Your task to perform on an android device: Go to calendar. Show me events next week Image 0: 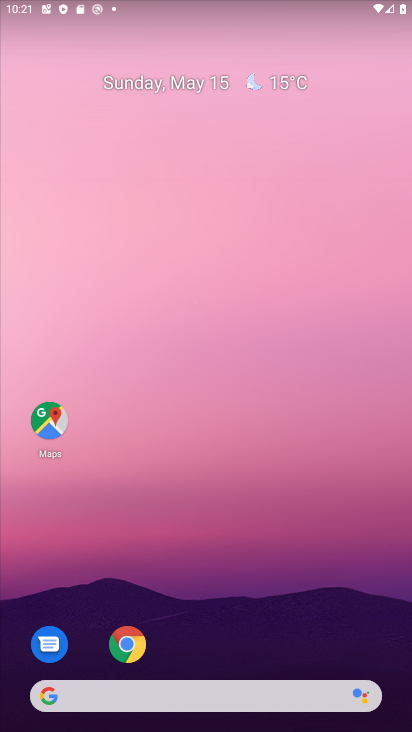
Step 0: drag from (206, 678) to (202, 332)
Your task to perform on an android device: Go to calendar. Show me events next week Image 1: 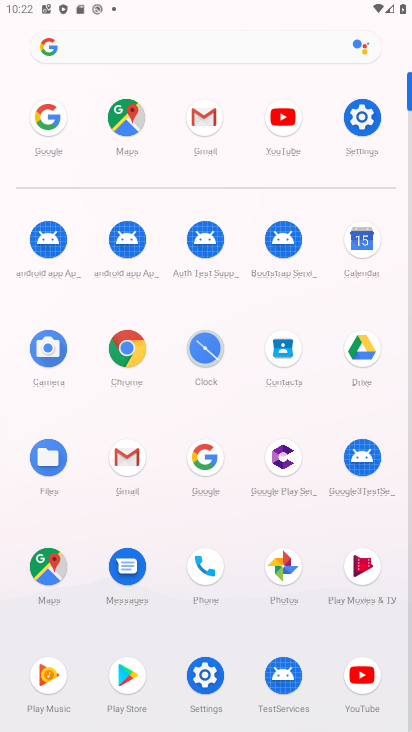
Step 1: click (364, 123)
Your task to perform on an android device: Go to calendar. Show me events next week Image 2: 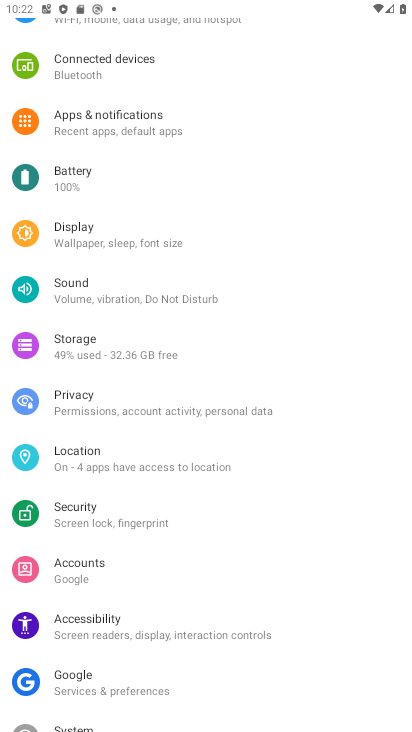
Step 2: drag from (106, 99) to (132, 515)
Your task to perform on an android device: Go to calendar. Show me events next week Image 3: 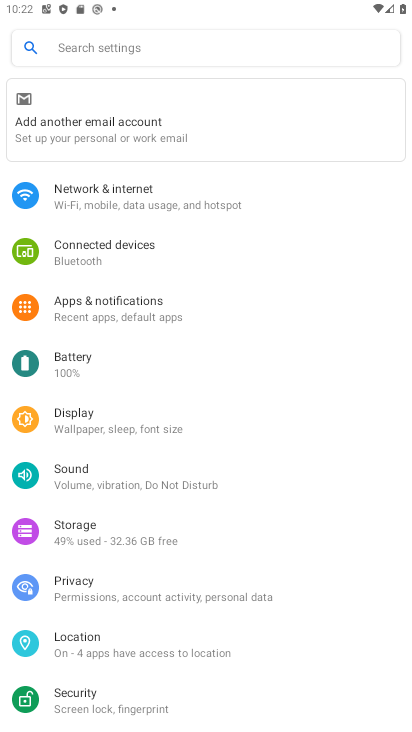
Step 3: press back button
Your task to perform on an android device: Go to calendar. Show me events next week Image 4: 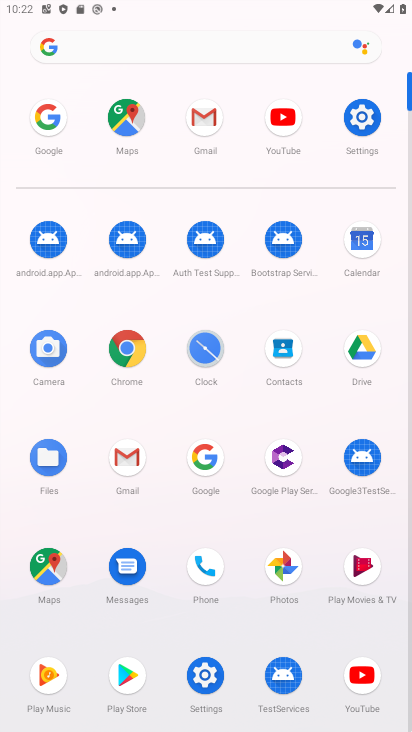
Step 4: click (361, 242)
Your task to perform on an android device: Go to calendar. Show me events next week Image 5: 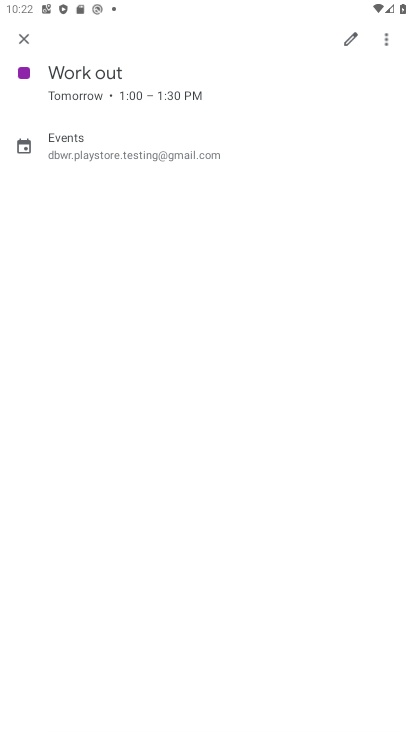
Step 5: click (22, 29)
Your task to perform on an android device: Go to calendar. Show me events next week Image 6: 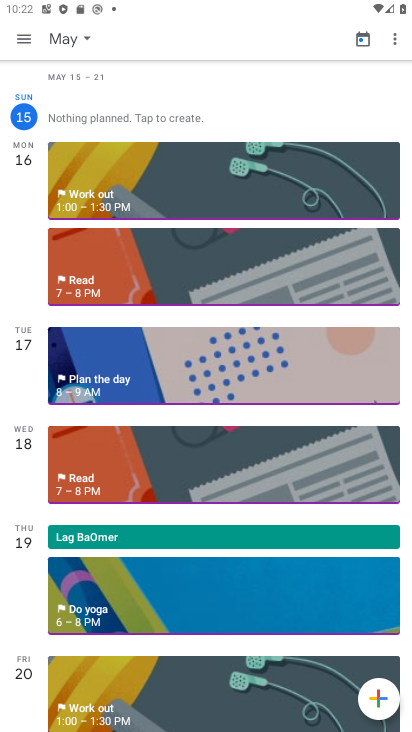
Step 6: drag from (192, 149) to (213, 401)
Your task to perform on an android device: Go to calendar. Show me events next week Image 7: 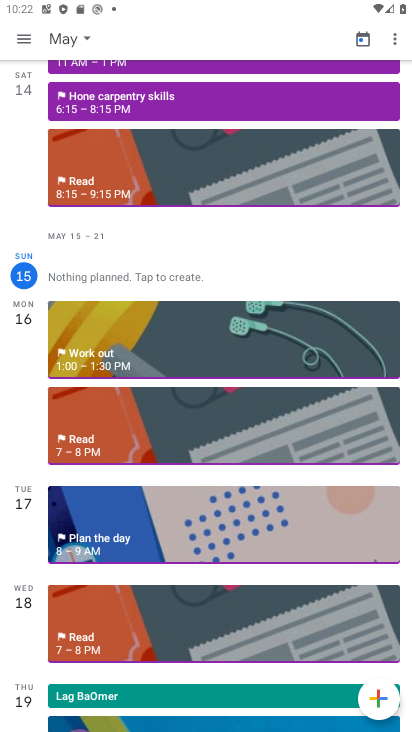
Step 7: drag from (158, 256) to (216, 502)
Your task to perform on an android device: Go to calendar. Show me events next week Image 8: 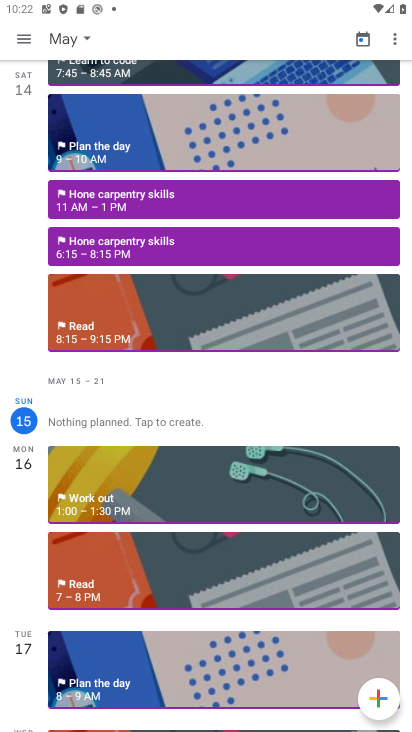
Step 8: drag from (211, 90) to (242, 566)
Your task to perform on an android device: Go to calendar. Show me events next week Image 9: 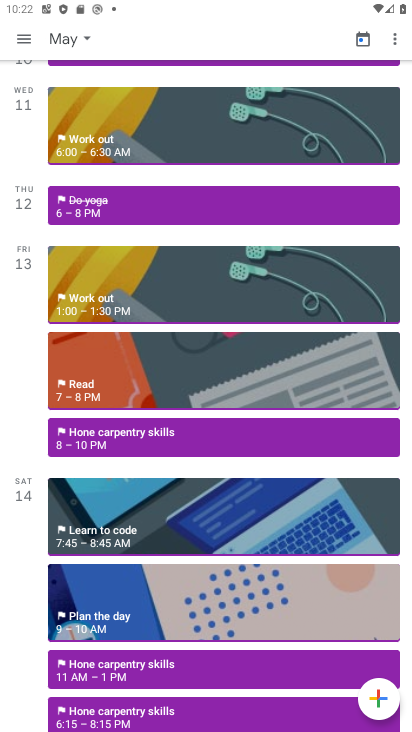
Step 9: drag from (149, 311) to (152, 655)
Your task to perform on an android device: Go to calendar. Show me events next week Image 10: 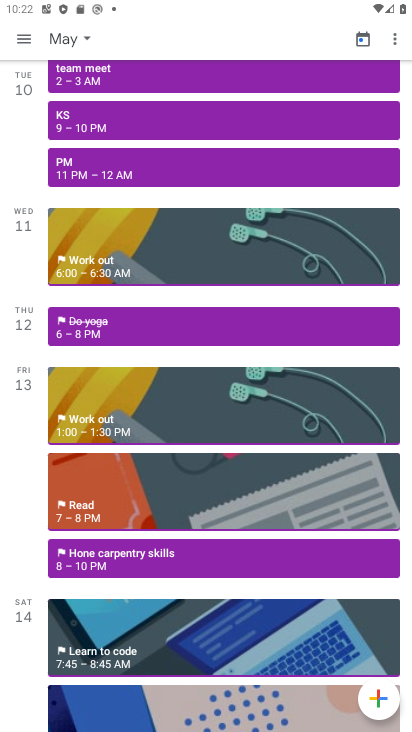
Step 10: click (65, 34)
Your task to perform on an android device: Go to calendar. Show me events next week Image 11: 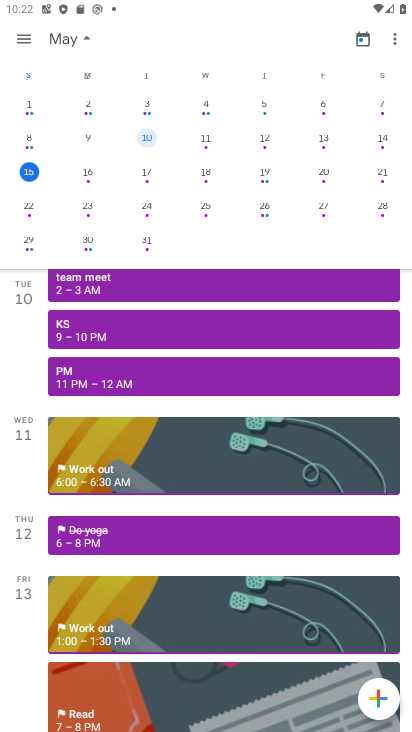
Step 11: click (260, 178)
Your task to perform on an android device: Go to calendar. Show me events next week Image 12: 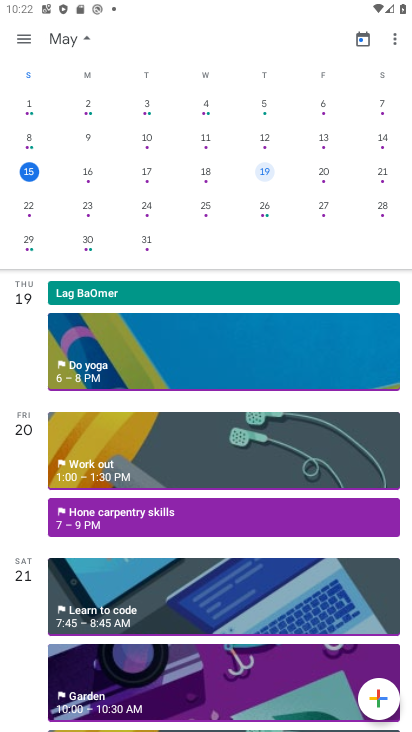
Step 12: task complete